Your task to perform on an android device: Open Google Chrome and open the bookmarks view Image 0: 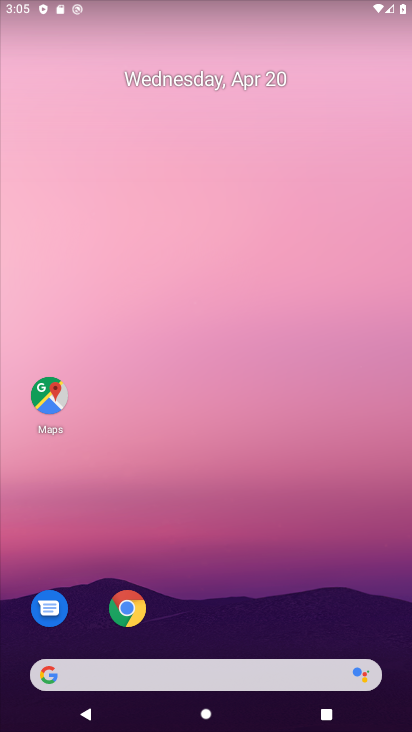
Step 0: click (124, 612)
Your task to perform on an android device: Open Google Chrome and open the bookmarks view Image 1: 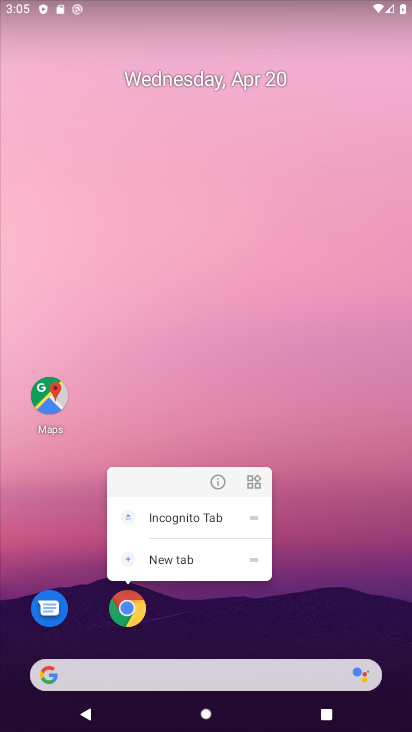
Step 1: click (124, 605)
Your task to perform on an android device: Open Google Chrome and open the bookmarks view Image 2: 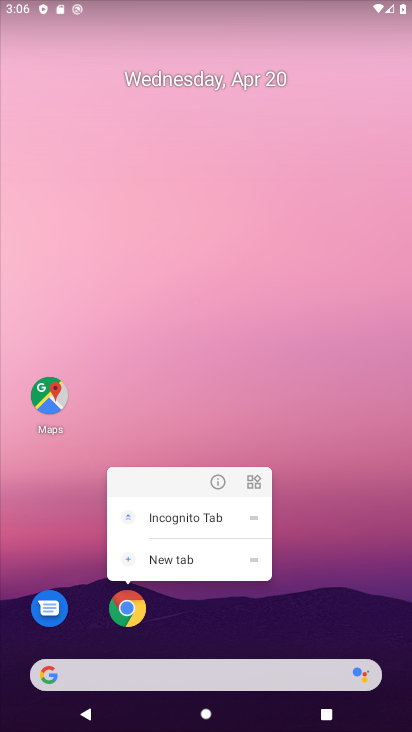
Step 2: click (126, 609)
Your task to perform on an android device: Open Google Chrome and open the bookmarks view Image 3: 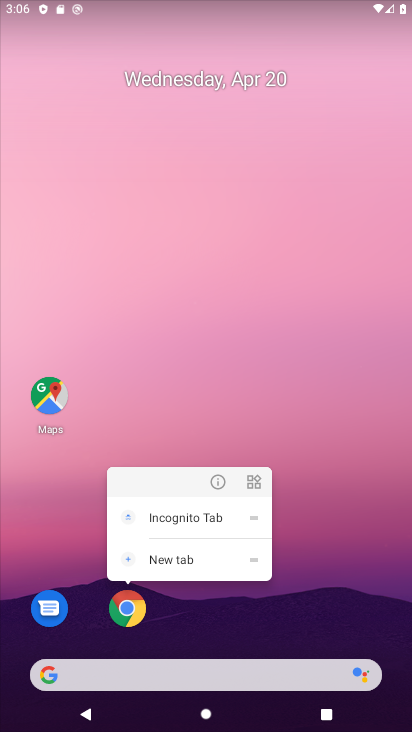
Step 3: click (139, 607)
Your task to perform on an android device: Open Google Chrome and open the bookmarks view Image 4: 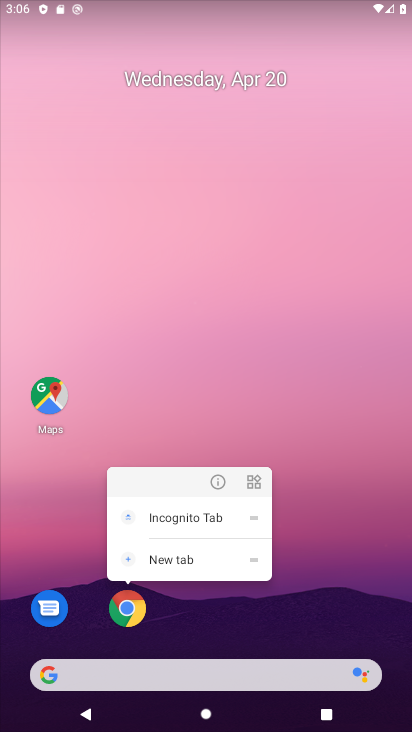
Step 4: click (127, 606)
Your task to perform on an android device: Open Google Chrome and open the bookmarks view Image 5: 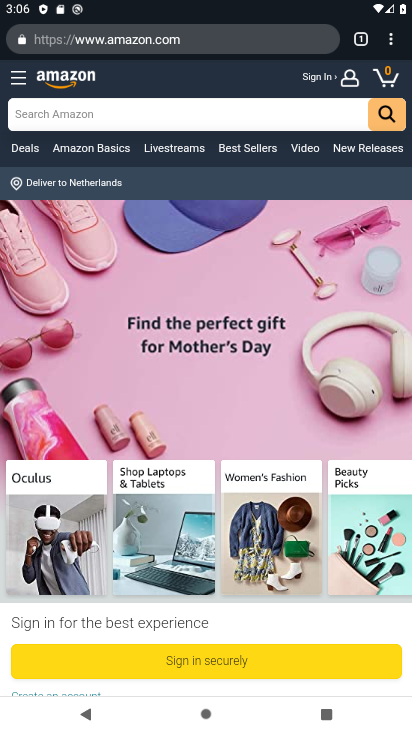
Step 5: task complete